Your task to perform on an android device: allow notifications from all sites in the chrome app Image 0: 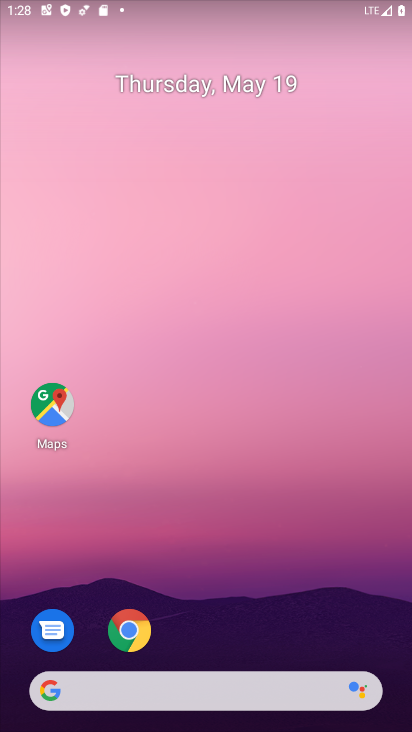
Step 0: click (148, 625)
Your task to perform on an android device: allow notifications from all sites in the chrome app Image 1: 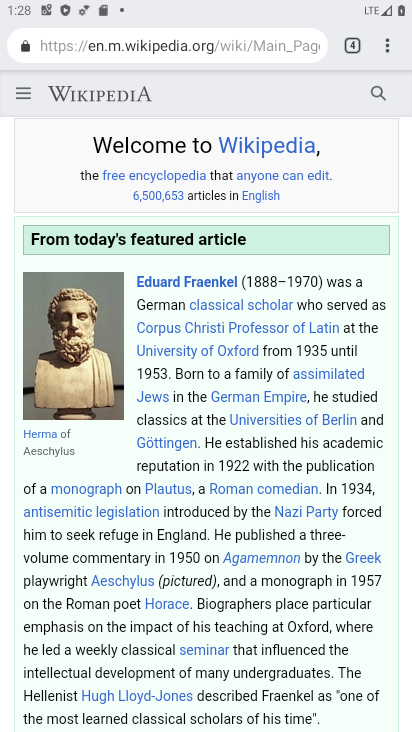
Step 1: click (382, 42)
Your task to perform on an android device: allow notifications from all sites in the chrome app Image 2: 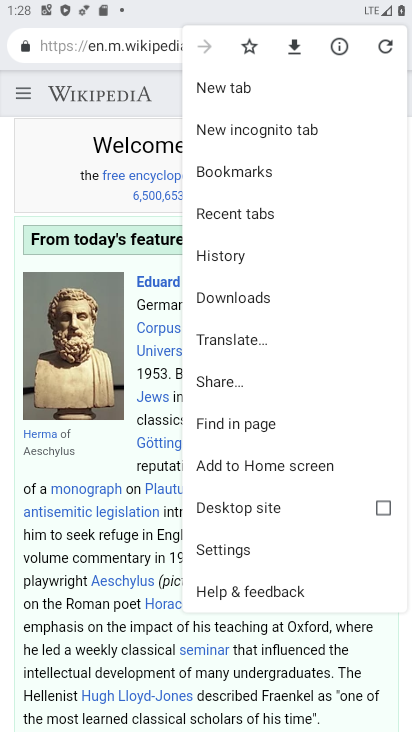
Step 2: click (230, 543)
Your task to perform on an android device: allow notifications from all sites in the chrome app Image 3: 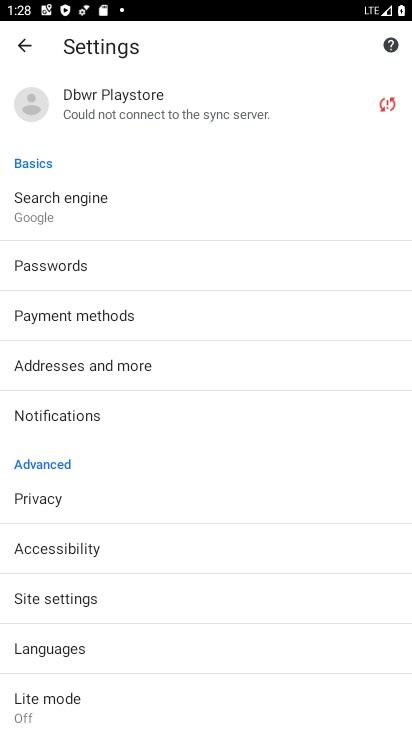
Step 3: click (61, 602)
Your task to perform on an android device: allow notifications from all sites in the chrome app Image 4: 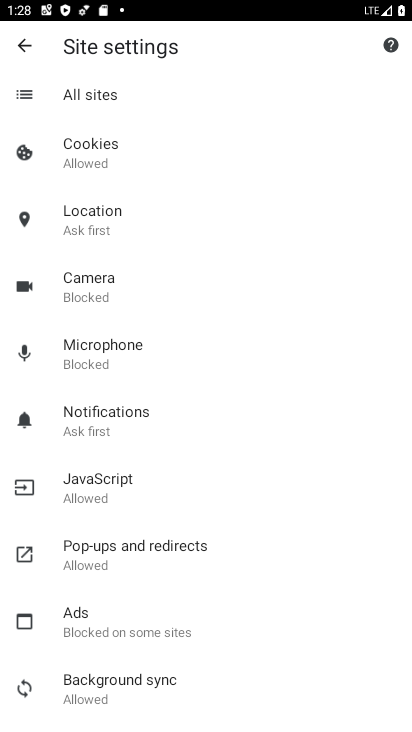
Step 4: click (96, 430)
Your task to perform on an android device: allow notifications from all sites in the chrome app Image 5: 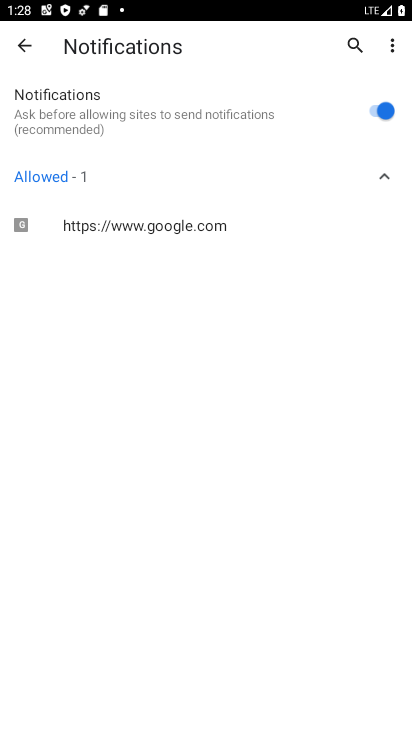
Step 5: task complete